Your task to perform on an android device: Open Google Chrome and click the shortcut for Amazon.com Image 0: 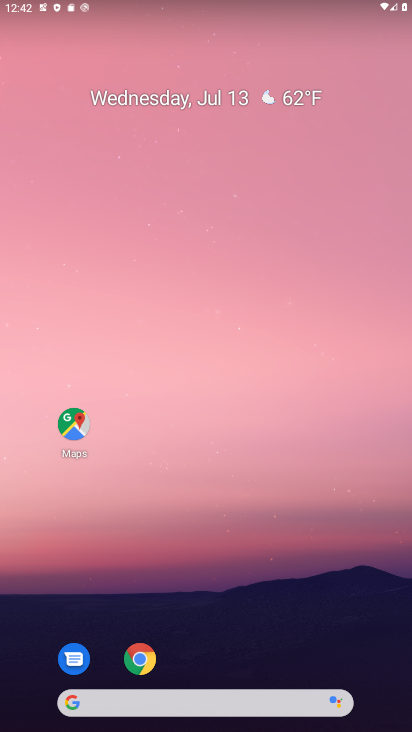
Step 0: drag from (210, 722) to (210, 236)
Your task to perform on an android device: Open Google Chrome and click the shortcut for Amazon.com Image 1: 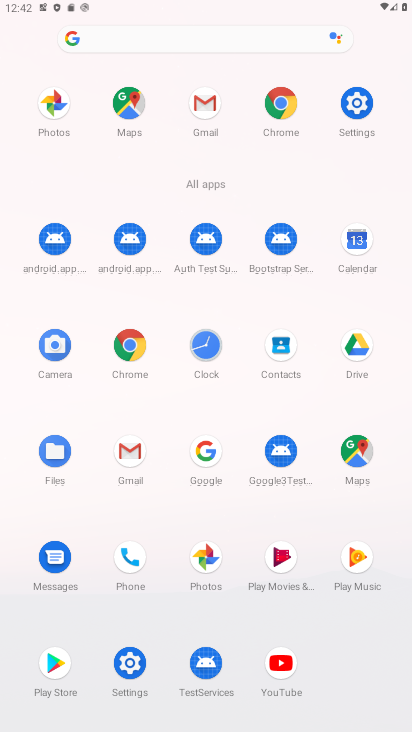
Step 1: click (126, 340)
Your task to perform on an android device: Open Google Chrome and click the shortcut for Amazon.com Image 2: 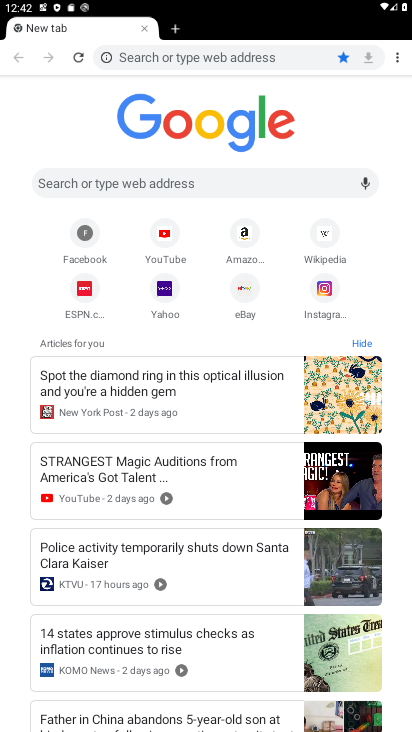
Step 2: click (244, 232)
Your task to perform on an android device: Open Google Chrome and click the shortcut for Amazon.com Image 3: 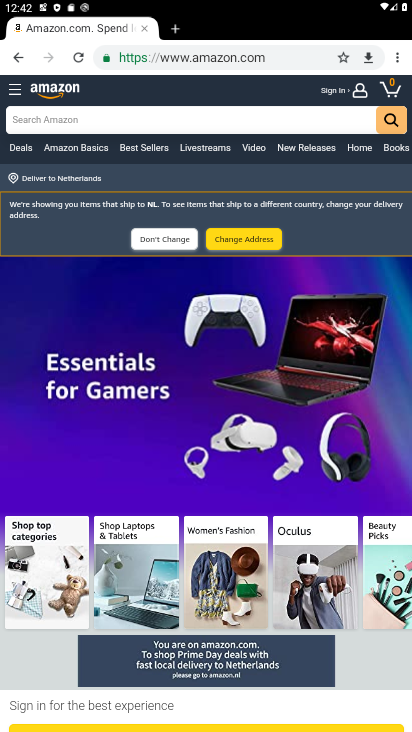
Step 3: task complete